Your task to perform on an android device: Go to wifi settings Image 0: 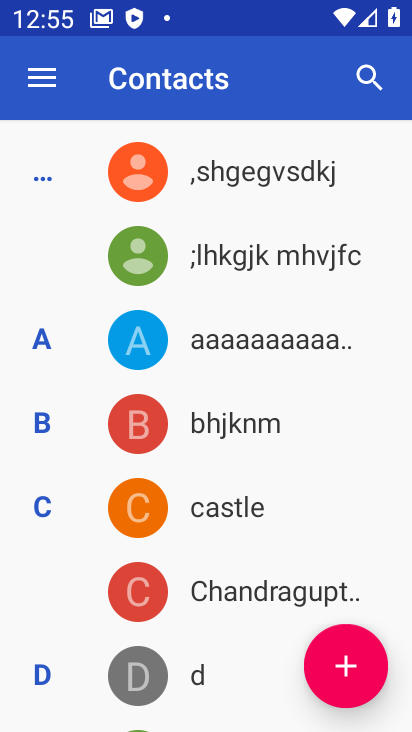
Step 0: press home button
Your task to perform on an android device: Go to wifi settings Image 1: 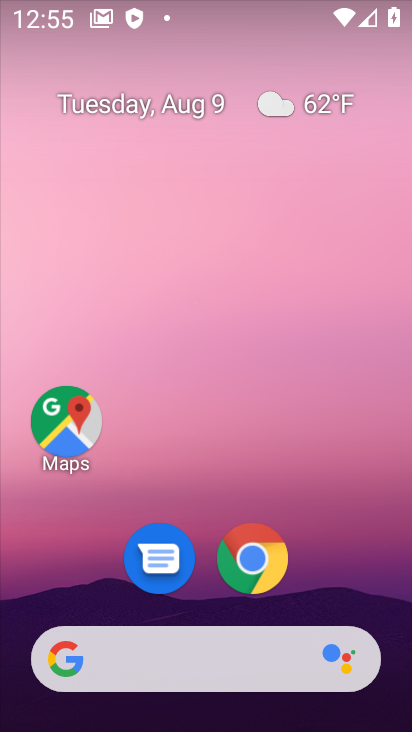
Step 1: drag from (308, 15) to (231, 567)
Your task to perform on an android device: Go to wifi settings Image 2: 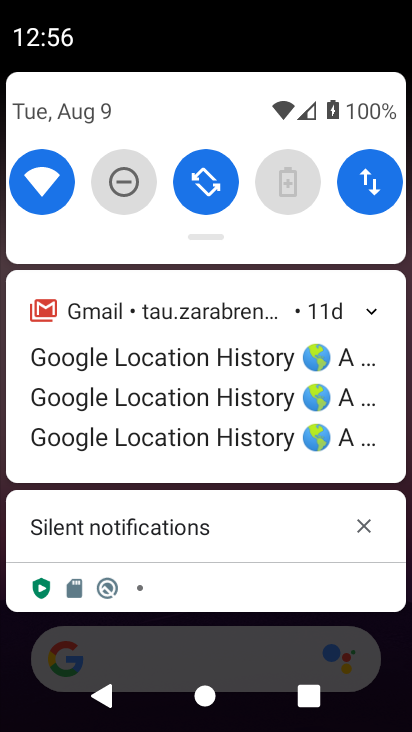
Step 2: click (31, 187)
Your task to perform on an android device: Go to wifi settings Image 3: 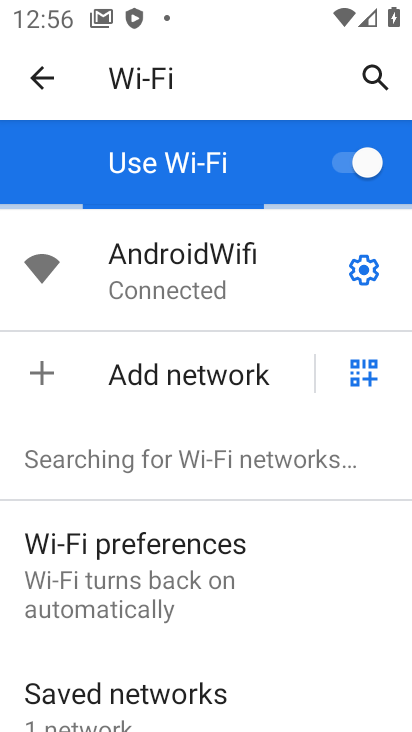
Step 3: task complete